Your task to perform on an android device: Go to CNN.com Image 0: 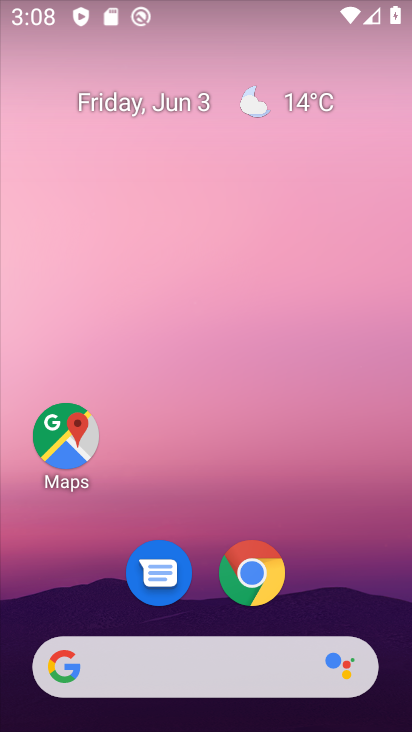
Step 0: drag from (300, 649) to (325, 25)
Your task to perform on an android device: Go to CNN.com Image 1: 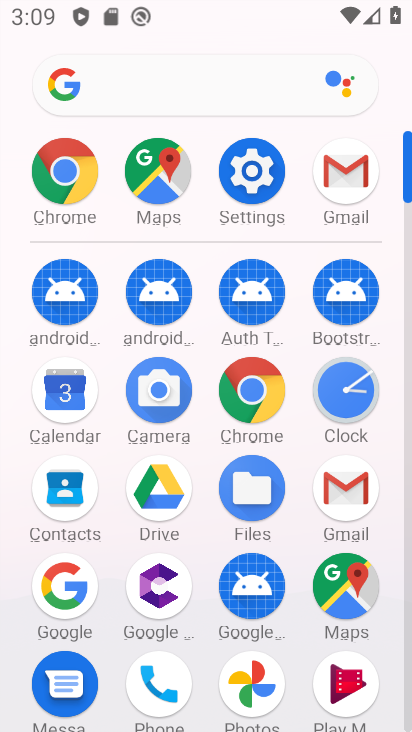
Step 1: click (264, 389)
Your task to perform on an android device: Go to CNN.com Image 2: 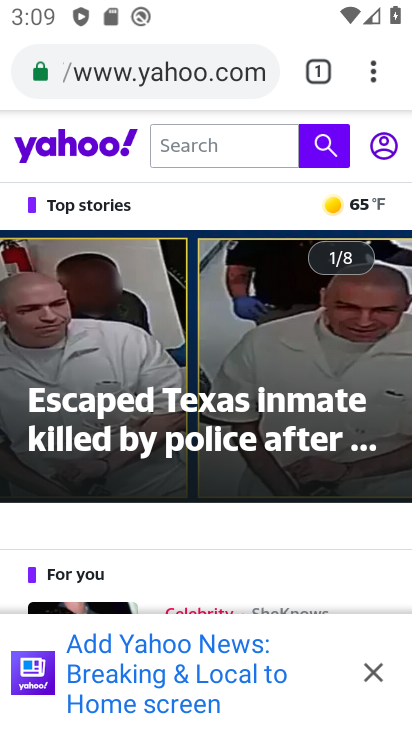
Step 2: click (256, 66)
Your task to perform on an android device: Go to CNN.com Image 3: 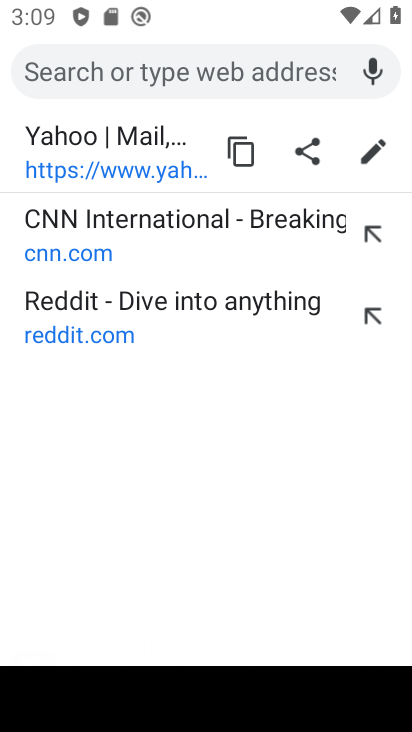
Step 3: click (281, 223)
Your task to perform on an android device: Go to CNN.com Image 4: 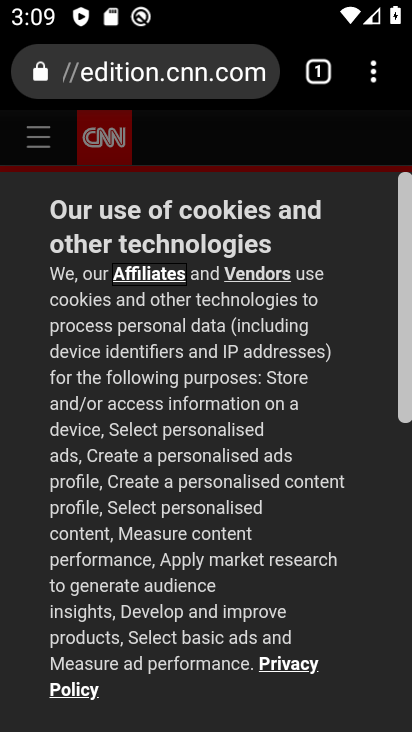
Step 4: task complete